Your task to perform on an android device: turn off translation in the chrome app Image 0: 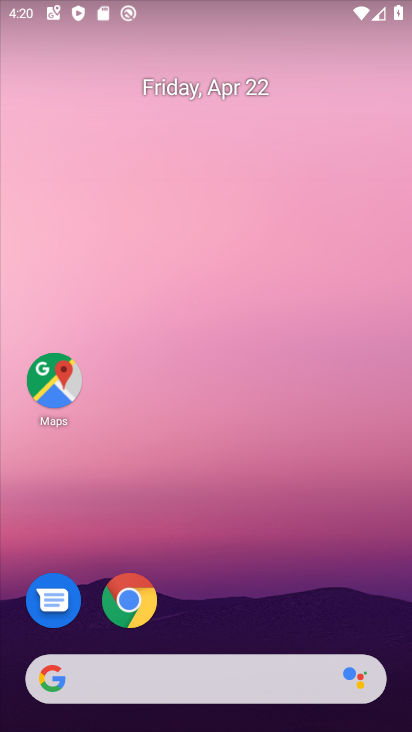
Step 0: click (221, 450)
Your task to perform on an android device: turn off translation in the chrome app Image 1: 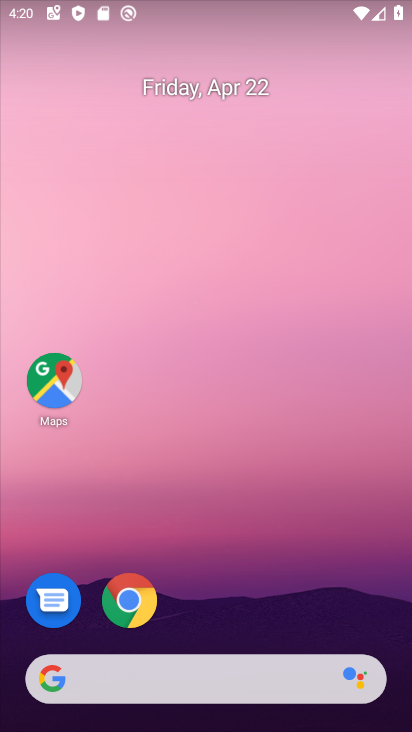
Step 1: press home button
Your task to perform on an android device: turn off translation in the chrome app Image 2: 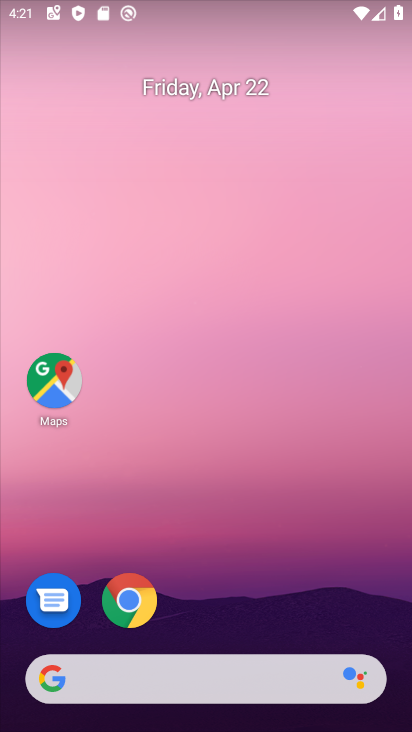
Step 2: drag from (217, 731) to (22, 192)
Your task to perform on an android device: turn off translation in the chrome app Image 3: 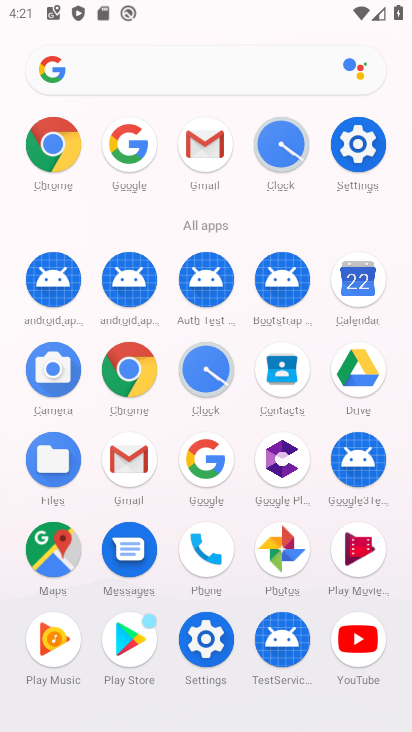
Step 3: click (130, 374)
Your task to perform on an android device: turn off translation in the chrome app Image 4: 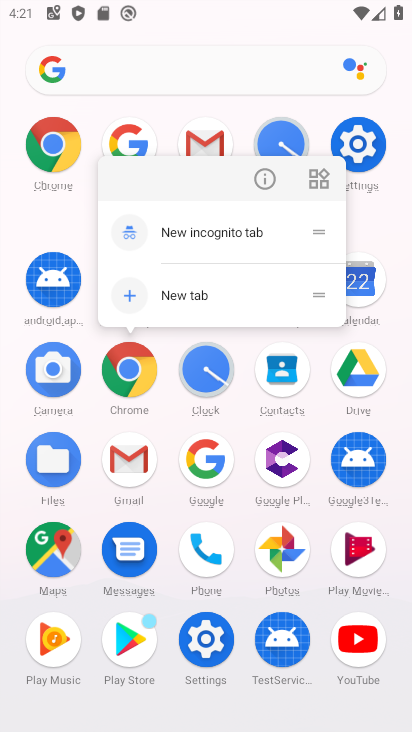
Step 4: click (130, 374)
Your task to perform on an android device: turn off translation in the chrome app Image 5: 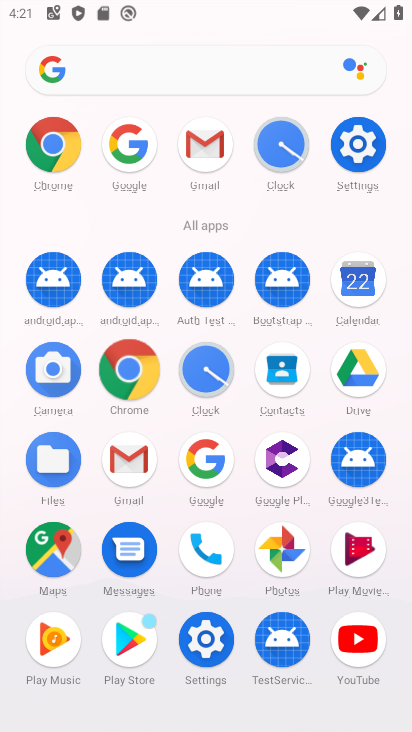
Step 5: click (130, 374)
Your task to perform on an android device: turn off translation in the chrome app Image 6: 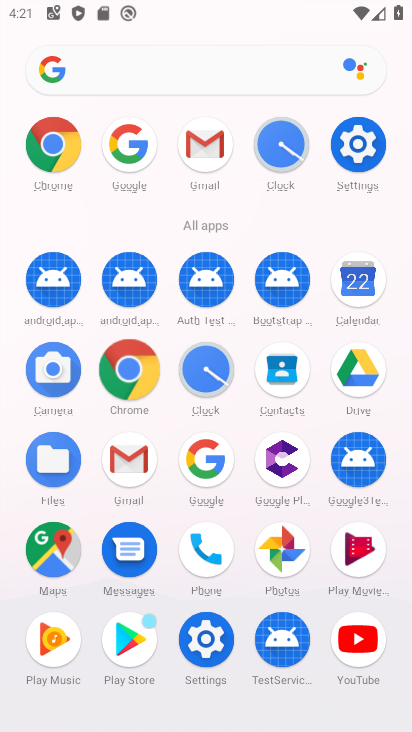
Step 6: click (130, 374)
Your task to perform on an android device: turn off translation in the chrome app Image 7: 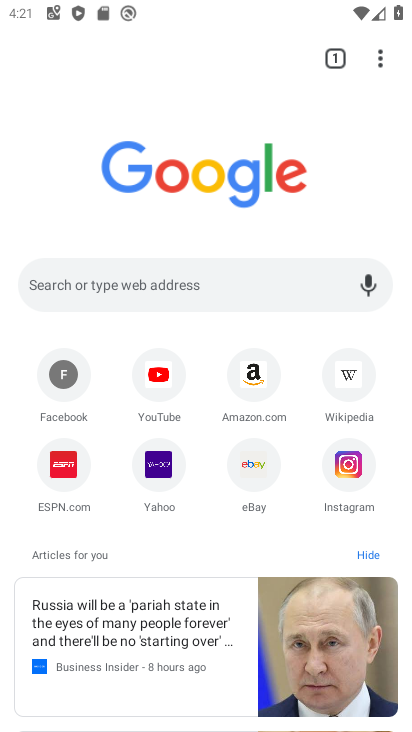
Step 7: click (376, 51)
Your task to perform on an android device: turn off translation in the chrome app Image 8: 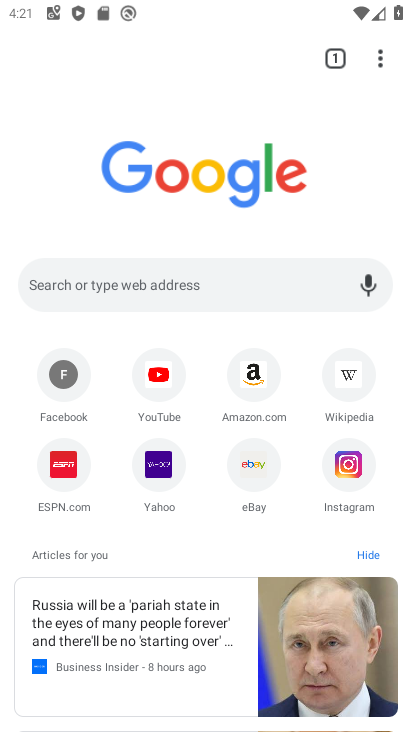
Step 8: drag from (376, 51) to (190, 504)
Your task to perform on an android device: turn off translation in the chrome app Image 9: 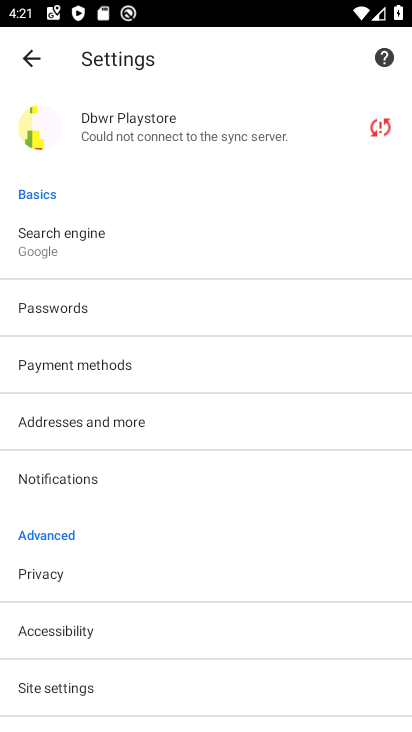
Step 9: drag from (161, 690) to (160, 176)
Your task to perform on an android device: turn off translation in the chrome app Image 10: 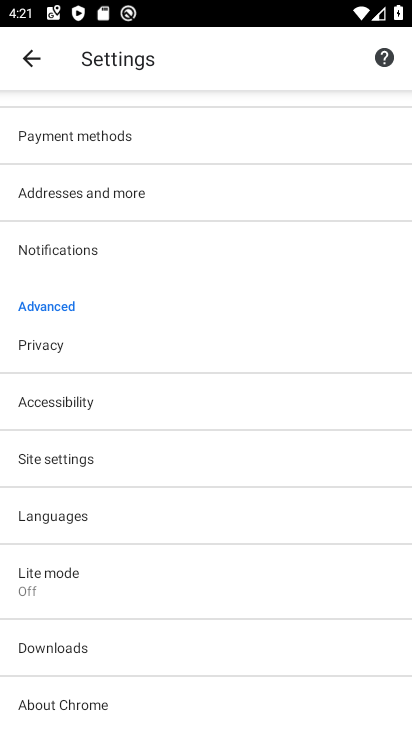
Step 10: click (64, 508)
Your task to perform on an android device: turn off translation in the chrome app Image 11: 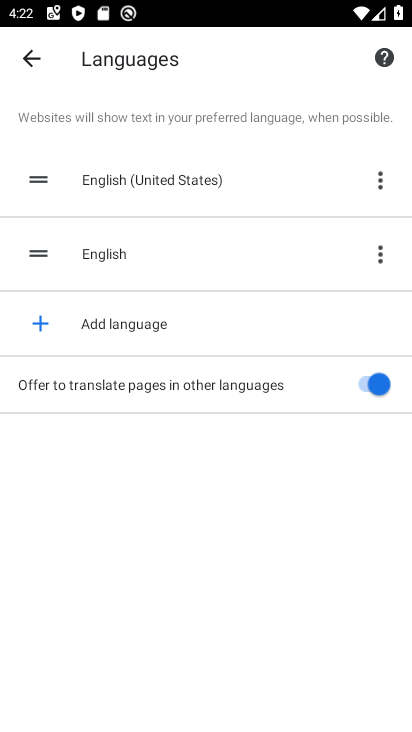
Step 11: click (365, 382)
Your task to perform on an android device: turn off translation in the chrome app Image 12: 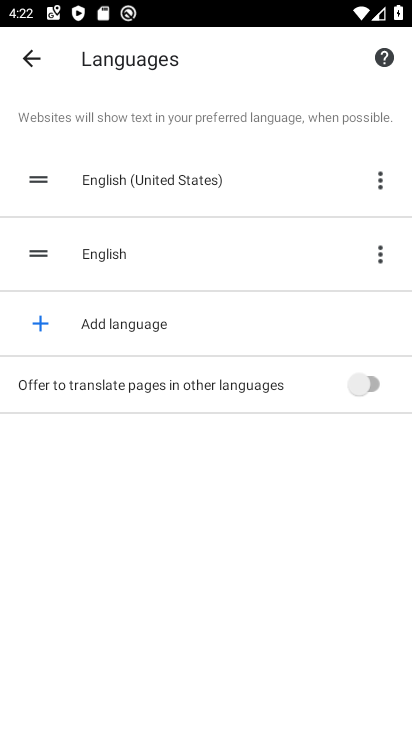
Step 12: task complete